Your task to perform on an android device: change the clock style Image 0: 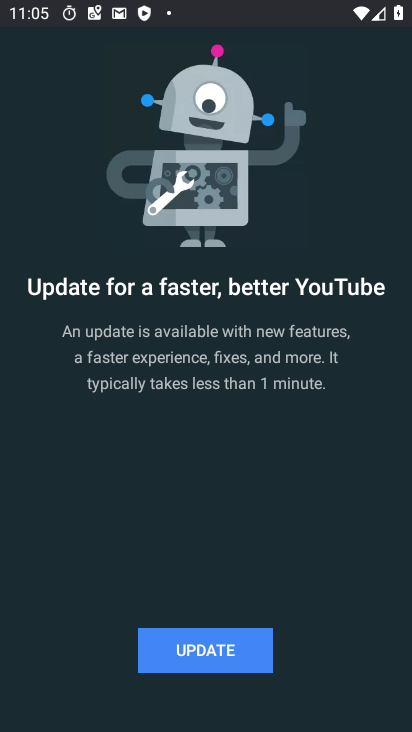
Step 0: press back button
Your task to perform on an android device: change the clock style Image 1: 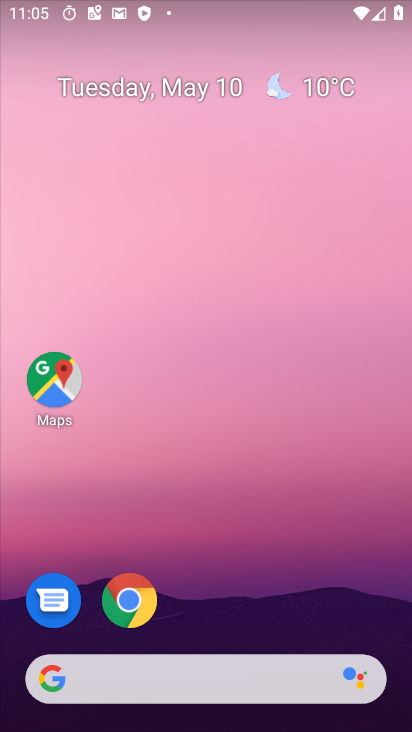
Step 1: drag from (268, 550) to (249, 10)
Your task to perform on an android device: change the clock style Image 2: 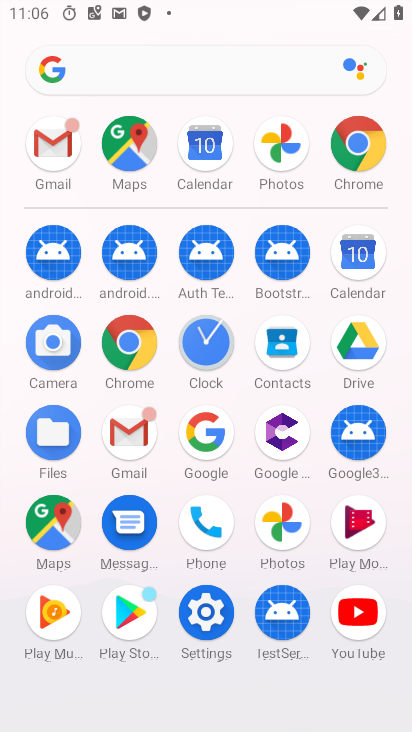
Step 2: click (207, 339)
Your task to perform on an android device: change the clock style Image 3: 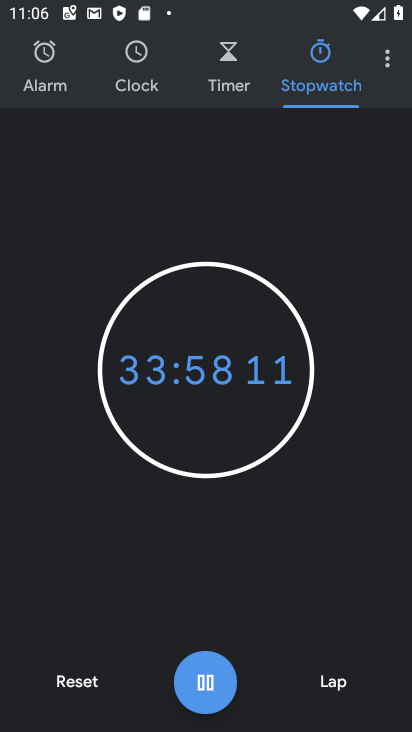
Step 3: drag from (392, 64) to (292, 101)
Your task to perform on an android device: change the clock style Image 4: 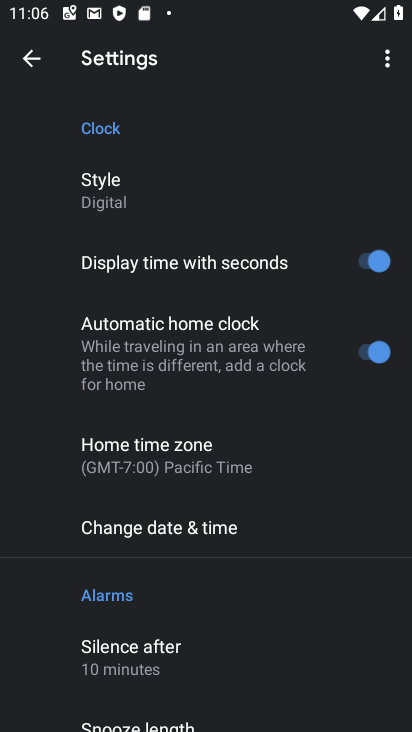
Step 4: click (185, 181)
Your task to perform on an android device: change the clock style Image 5: 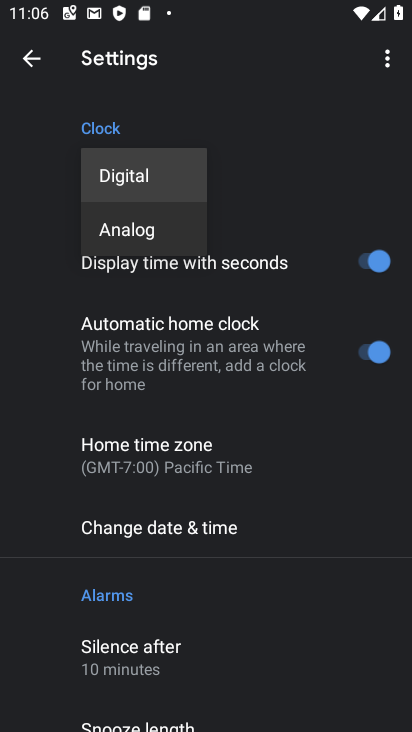
Step 5: click (141, 226)
Your task to perform on an android device: change the clock style Image 6: 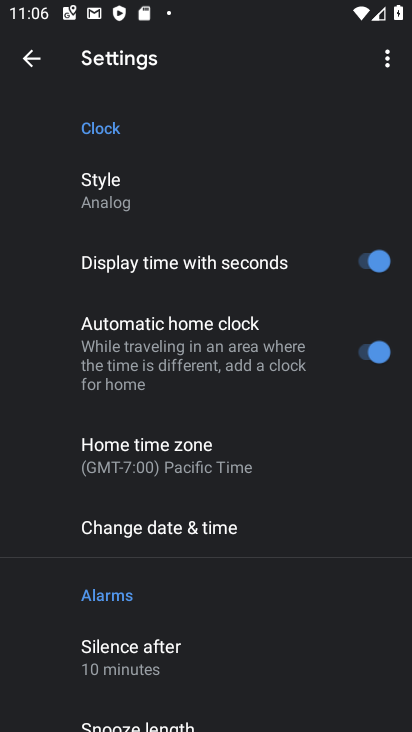
Step 6: task complete